Your task to perform on an android device: change alarm snooze length Image 0: 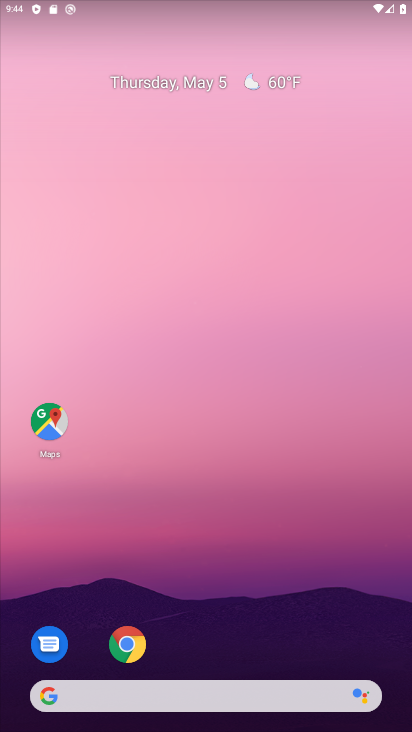
Step 0: drag from (395, 643) to (373, 13)
Your task to perform on an android device: change alarm snooze length Image 1: 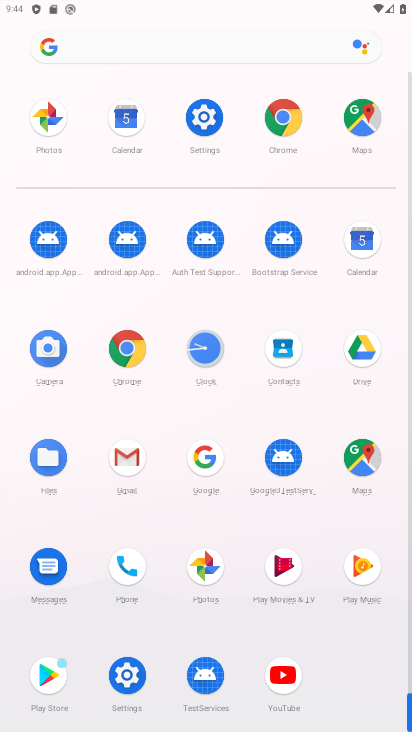
Step 1: click (218, 354)
Your task to perform on an android device: change alarm snooze length Image 2: 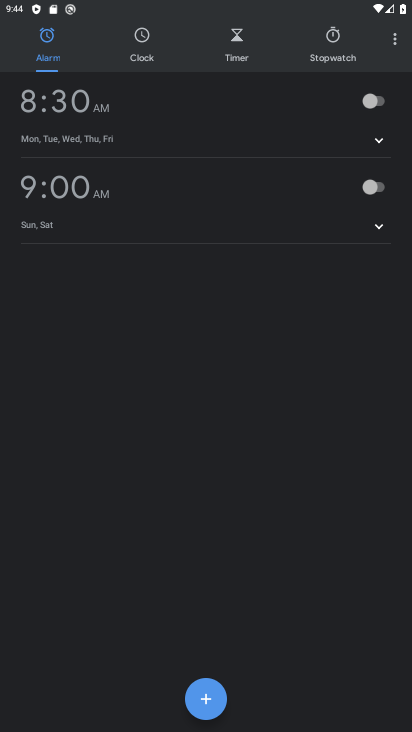
Step 2: click (395, 45)
Your task to perform on an android device: change alarm snooze length Image 3: 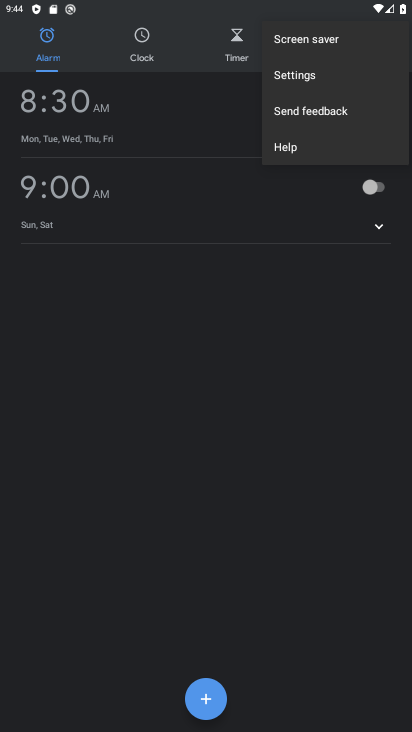
Step 3: click (299, 80)
Your task to perform on an android device: change alarm snooze length Image 4: 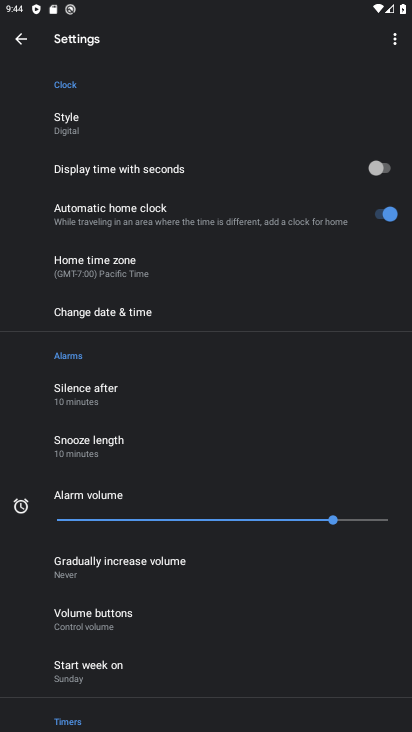
Step 4: click (126, 449)
Your task to perform on an android device: change alarm snooze length Image 5: 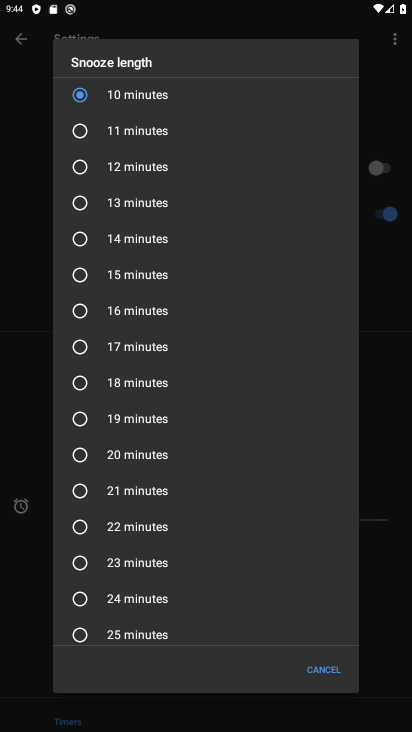
Step 5: click (77, 241)
Your task to perform on an android device: change alarm snooze length Image 6: 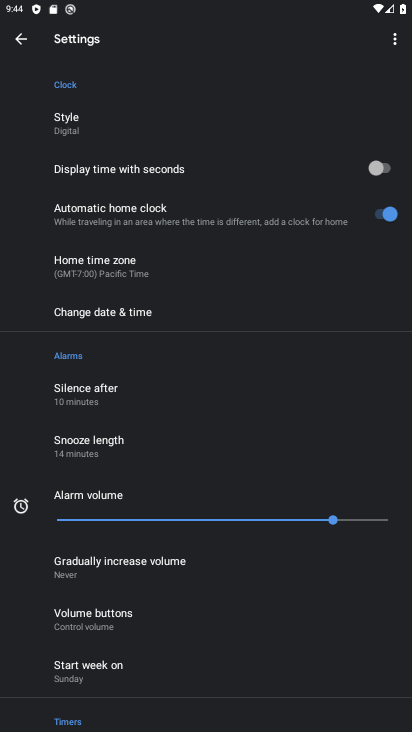
Step 6: task complete